Your task to perform on an android device: Open Google Chrome Image 0: 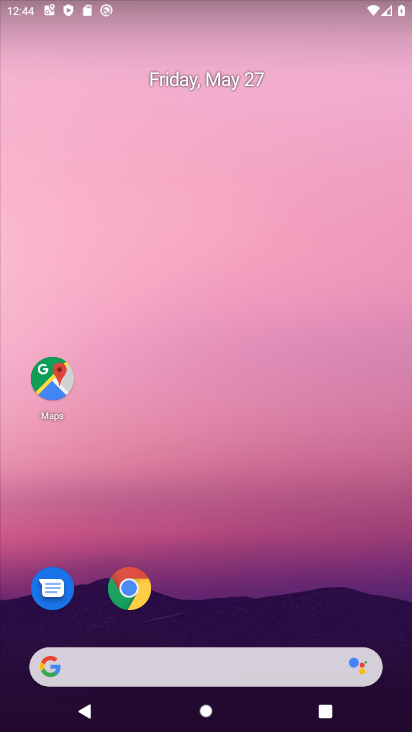
Step 0: click (148, 589)
Your task to perform on an android device: Open Google Chrome Image 1: 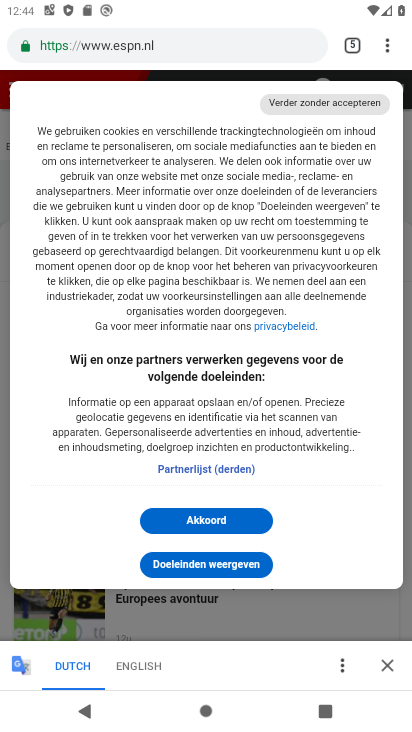
Step 1: task complete